Your task to perform on an android device: Search for pizza restaurants on Maps Image 0: 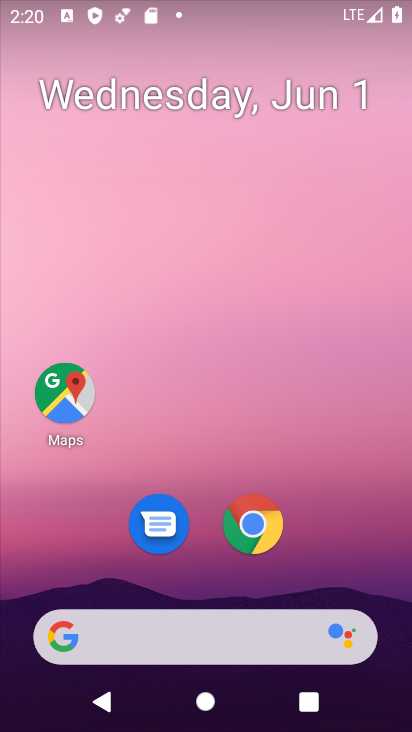
Step 0: click (83, 388)
Your task to perform on an android device: Search for pizza restaurants on Maps Image 1: 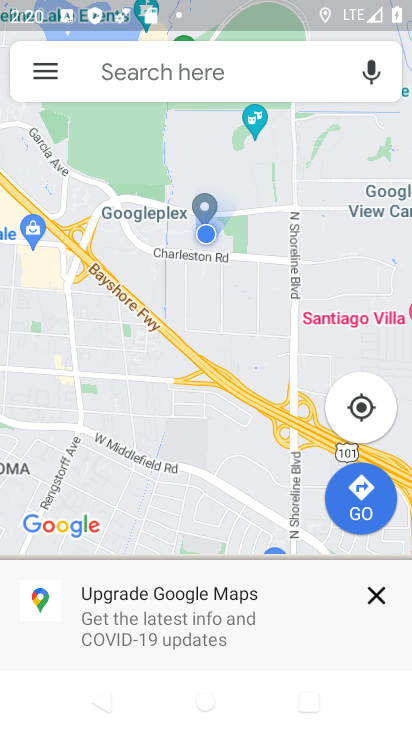
Step 1: click (219, 67)
Your task to perform on an android device: Search for pizza restaurants on Maps Image 2: 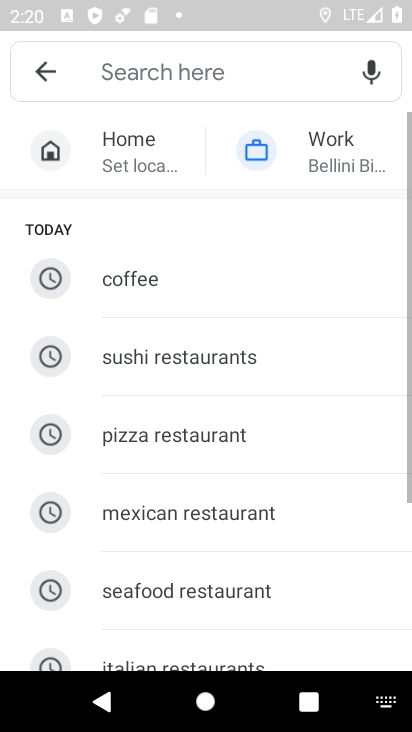
Step 2: click (219, 424)
Your task to perform on an android device: Search for pizza restaurants on Maps Image 3: 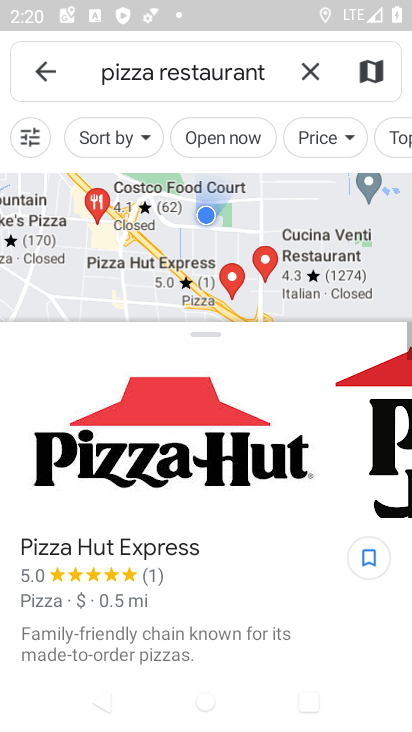
Step 3: task complete